Your task to perform on an android device: When is my next meeting? Image 0: 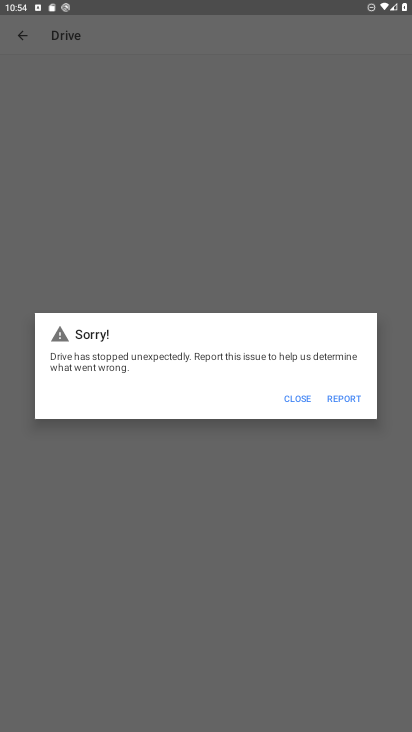
Step 0: press home button
Your task to perform on an android device: When is my next meeting? Image 1: 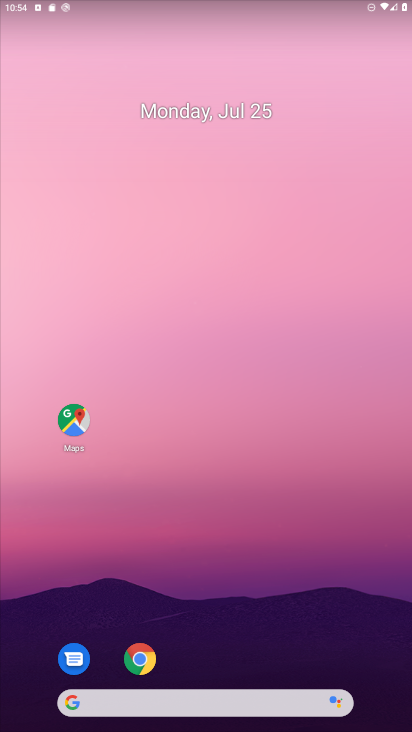
Step 1: drag from (204, 647) to (215, 156)
Your task to perform on an android device: When is my next meeting? Image 2: 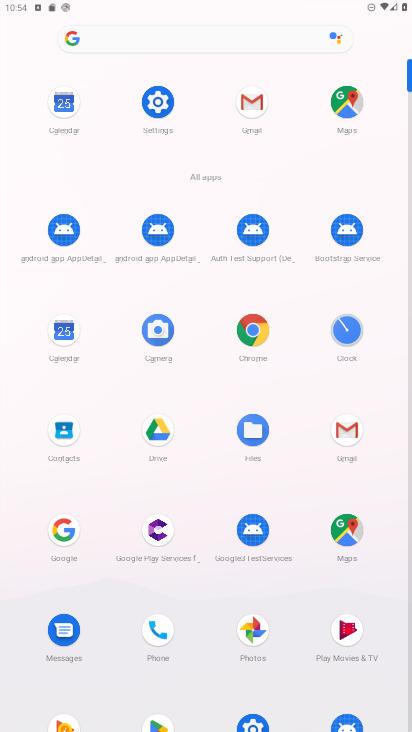
Step 2: click (55, 328)
Your task to perform on an android device: When is my next meeting? Image 3: 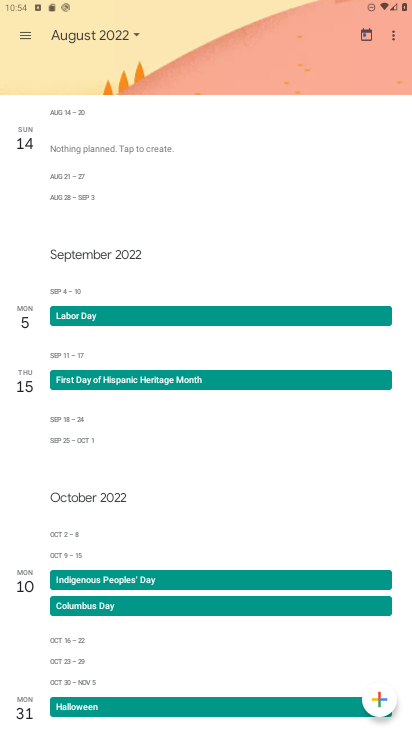
Step 3: click (139, 43)
Your task to perform on an android device: When is my next meeting? Image 4: 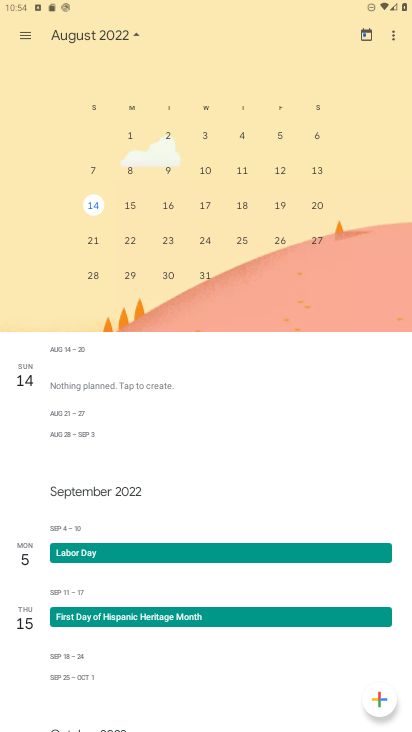
Step 4: task complete